Your task to perform on an android device: toggle notification dots Image 0: 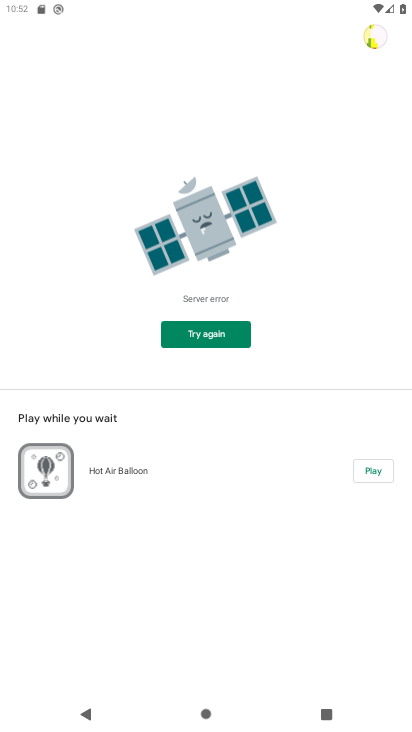
Step 0: press home button
Your task to perform on an android device: toggle notification dots Image 1: 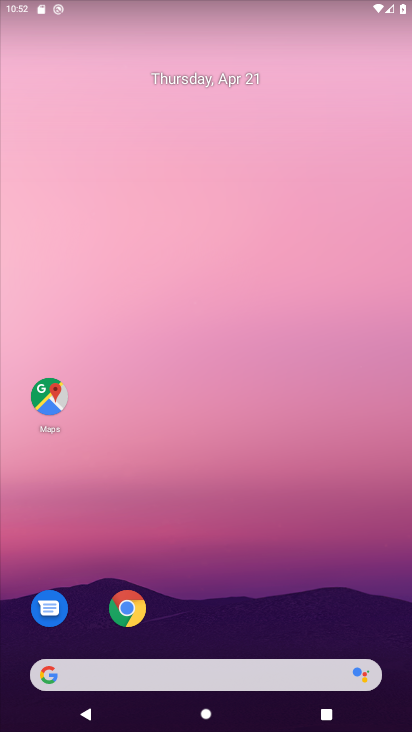
Step 1: drag from (199, 598) to (171, 246)
Your task to perform on an android device: toggle notification dots Image 2: 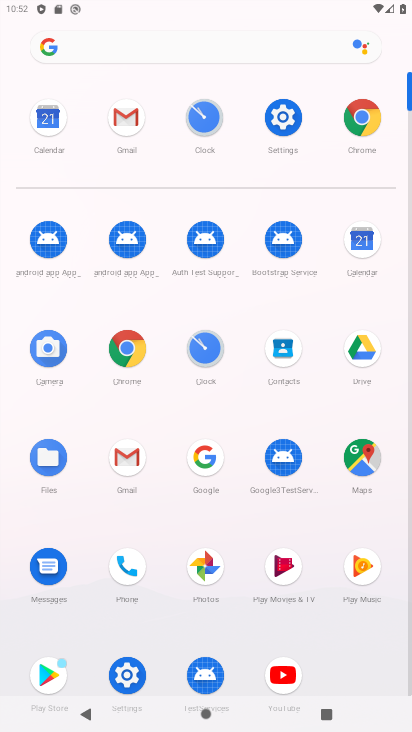
Step 2: click (287, 117)
Your task to perform on an android device: toggle notification dots Image 3: 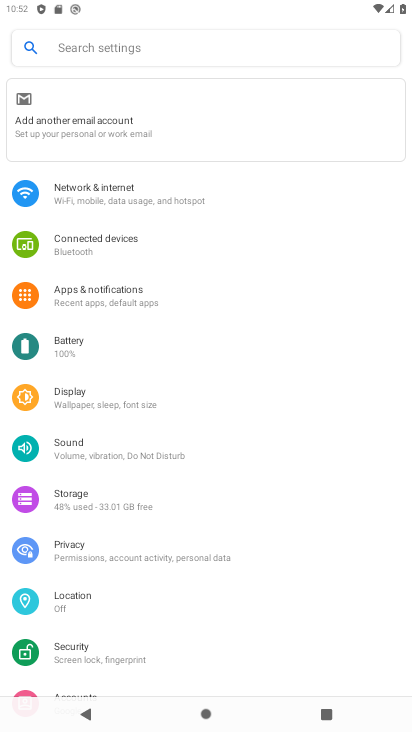
Step 3: click (69, 294)
Your task to perform on an android device: toggle notification dots Image 4: 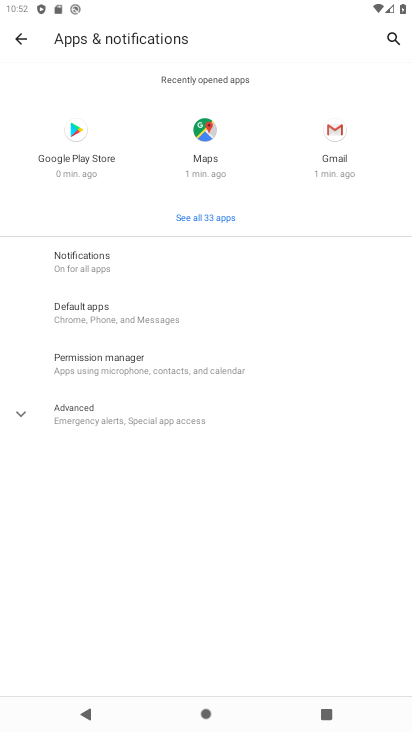
Step 4: click (76, 266)
Your task to perform on an android device: toggle notification dots Image 5: 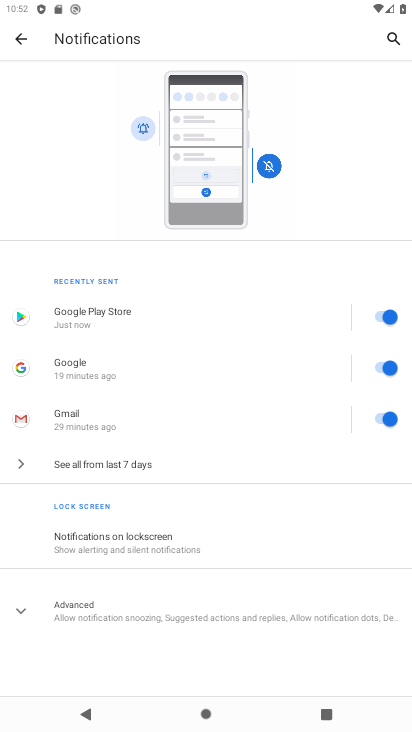
Step 5: click (121, 603)
Your task to perform on an android device: toggle notification dots Image 6: 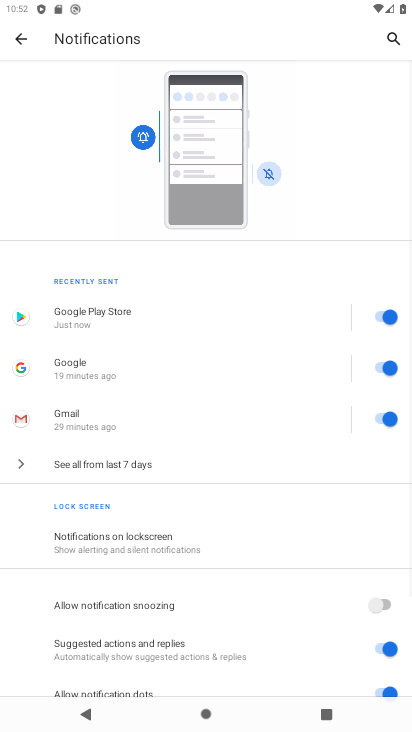
Step 6: drag from (163, 650) to (171, 469)
Your task to perform on an android device: toggle notification dots Image 7: 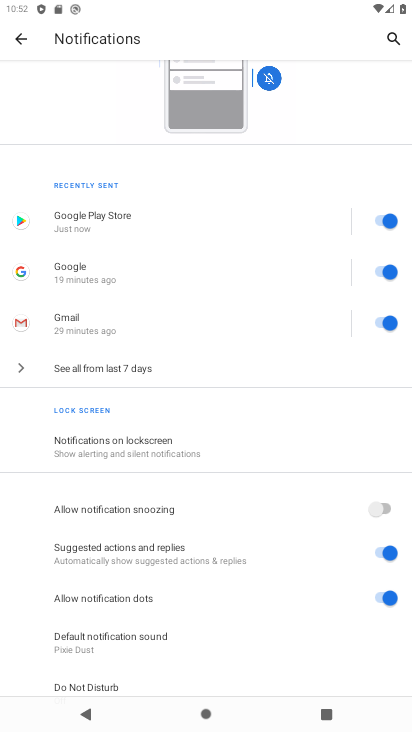
Step 7: click (393, 597)
Your task to perform on an android device: toggle notification dots Image 8: 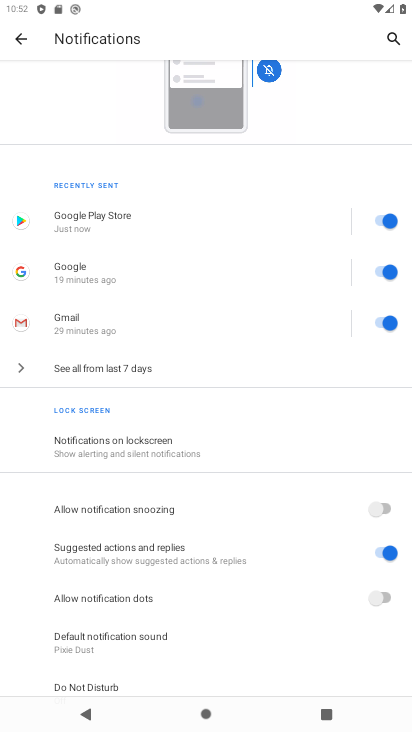
Step 8: task complete